Your task to perform on an android device: Go to Google maps Image 0: 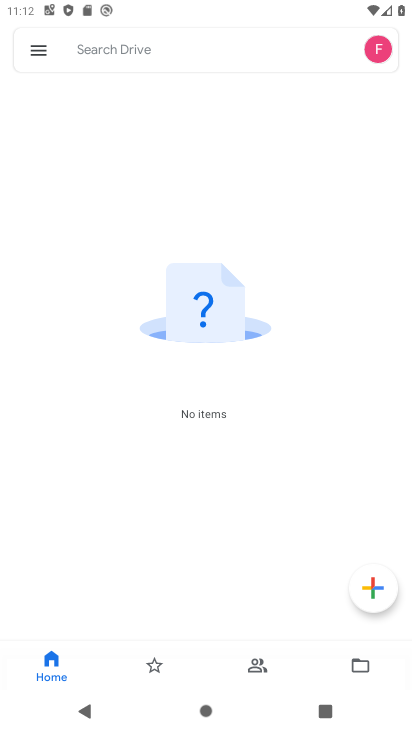
Step 0: press home button
Your task to perform on an android device: Go to Google maps Image 1: 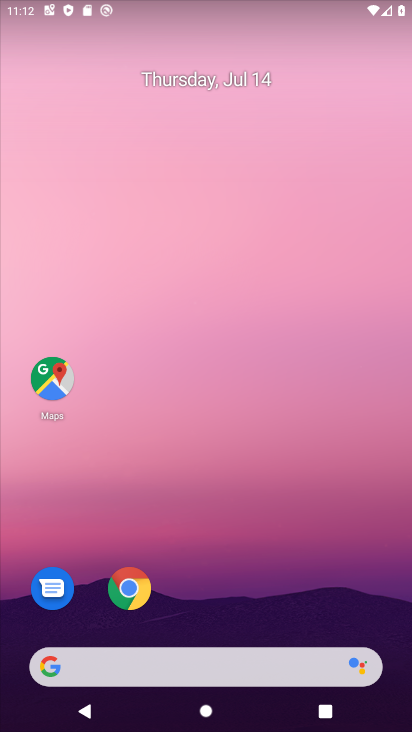
Step 1: click (54, 380)
Your task to perform on an android device: Go to Google maps Image 2: 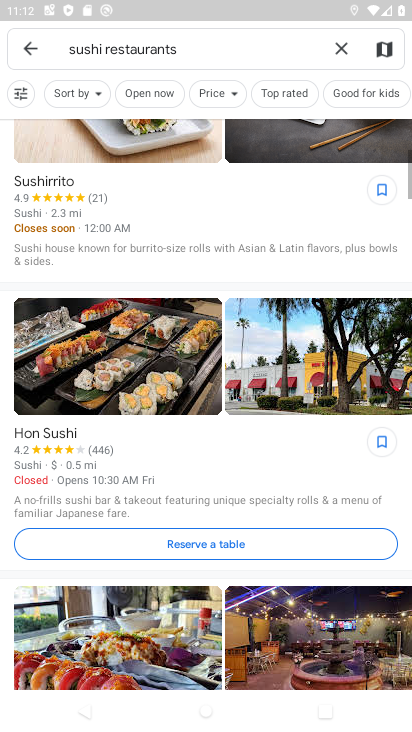
Step 2: click (341, 49)
Your task to perform on an android device: Go to Google maps Image 3: 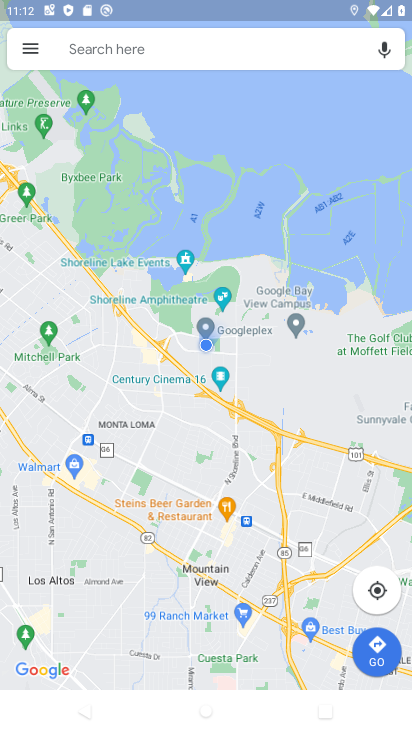
Step 3: task complete